Your task to perform on an android device: Do I have any events this weekend? Image 0: 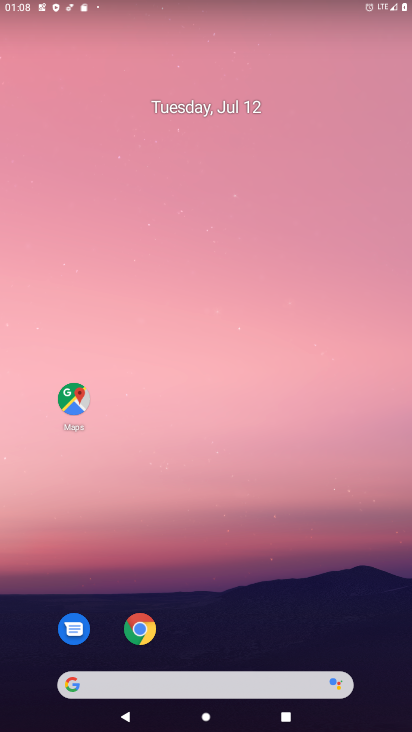
Step 0: drag from (23, 717) to (317, 56)
Your task to perform on an android device: Do I have any events this weekend? Image 1: 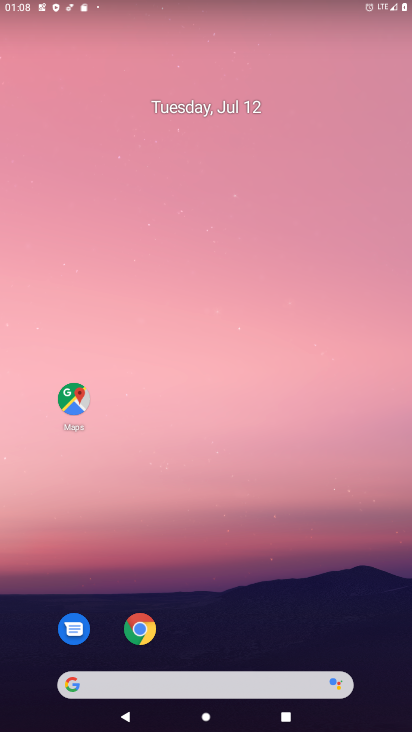
Step 1: drag from (39, 703) to (335, 0)
Your task to perform on an android device: Do I have any events this weekend? Image 2: 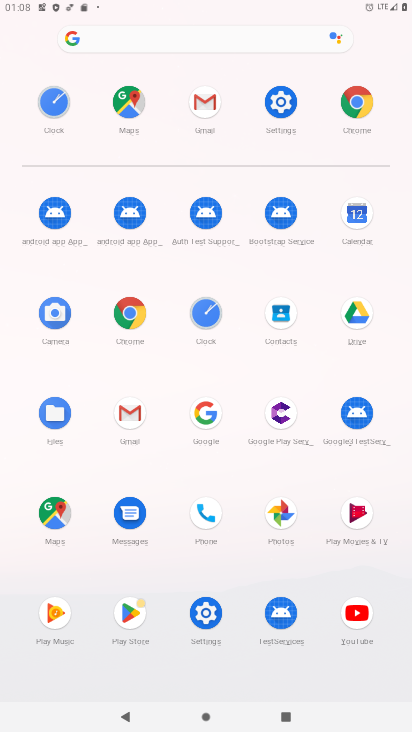
Step 2: click (356, 222)
Your task to perform on an android device: Do I have any events this weekend? Image 3: 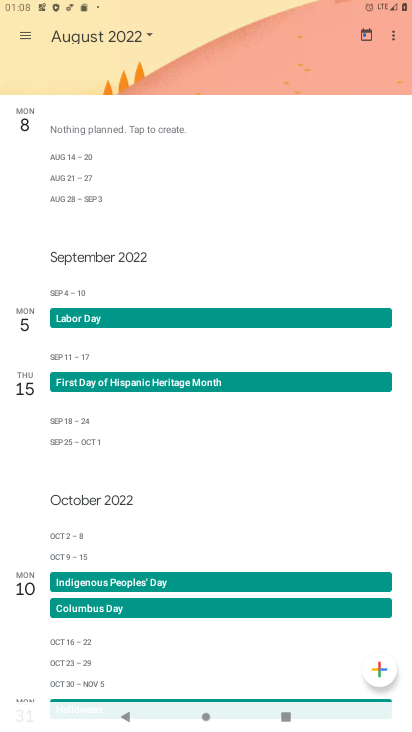
Step 3: click (128, 67)
Your task to perform on an android device: Do I have any events this weekend? Image 4: 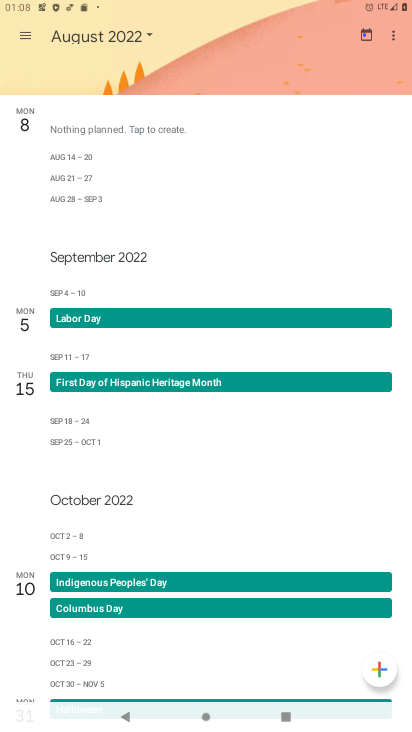
Step 4: click (132, 30)
Your task to perform on an android device: Do I have any events this weekend? Image 5: 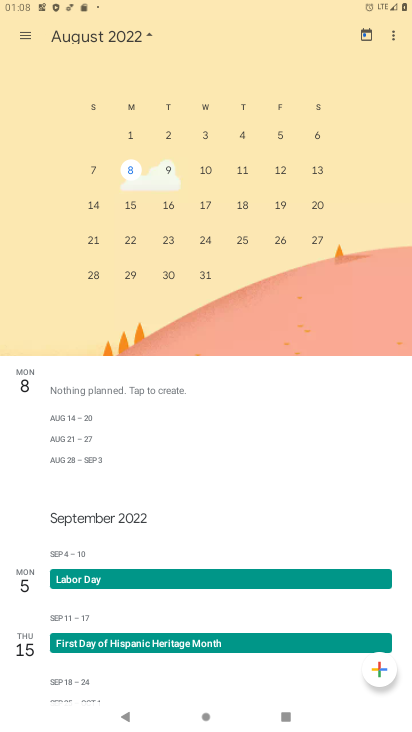
Step 5: task complete